Your task to perform on an android device: Open Maps and search for coffee Image 0: 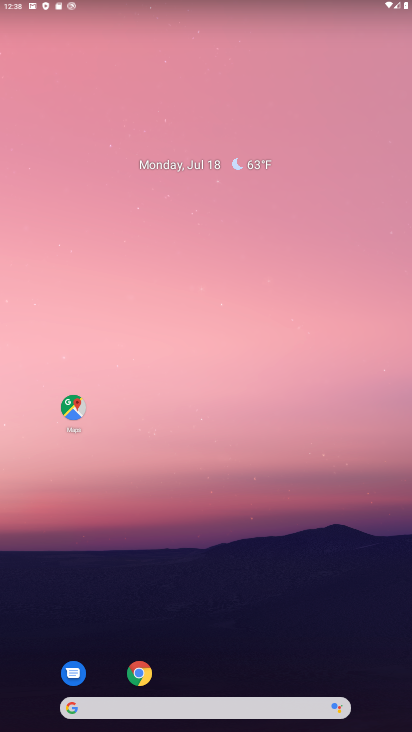
Step 0: drag from (215, 640) to (180, 165)
Your task to perform on an android device: Open Maps and search for coffee Image 1: 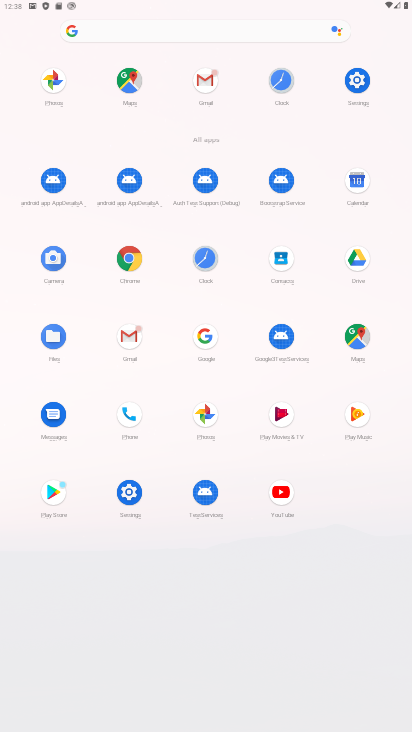
Step 1: click (129, 82)
Your task to perform on an android device: Open Maps and search for coffee Image 2: 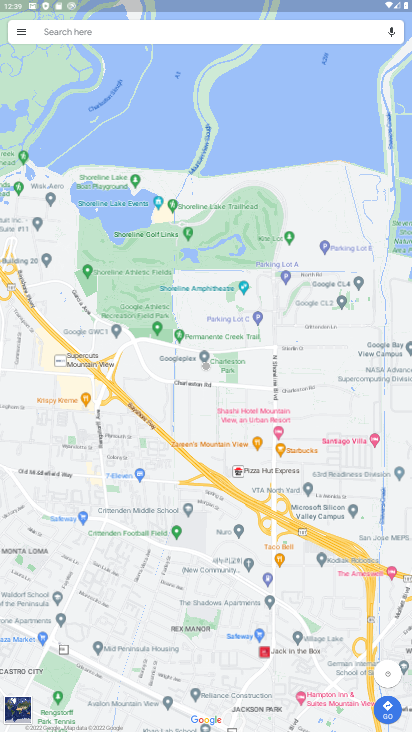
Step 2: click (140, 20)
Your task to perform on an android device: Open Maps and search for coffee Image 3: 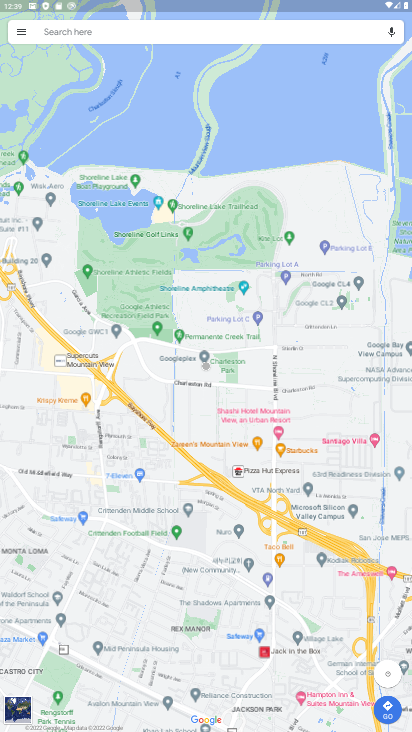
Step 3: click (124, 28)
Your task to perform on an android device: Open Maps and search for coffee Image 4: 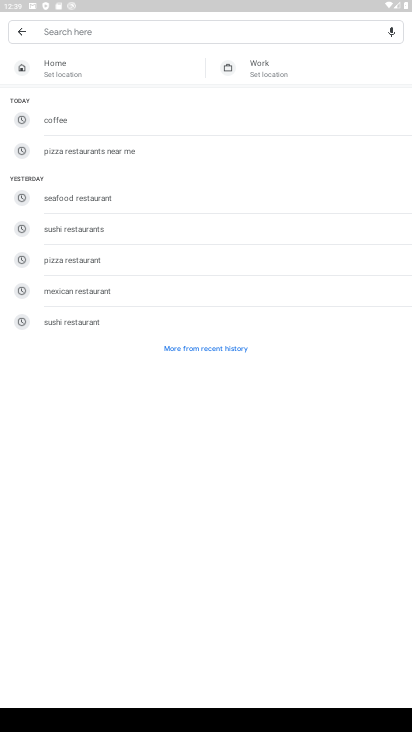
Step 4: click (68, 111)
Your task to perform on an android device: Open Maps and search for coffee Image 5: 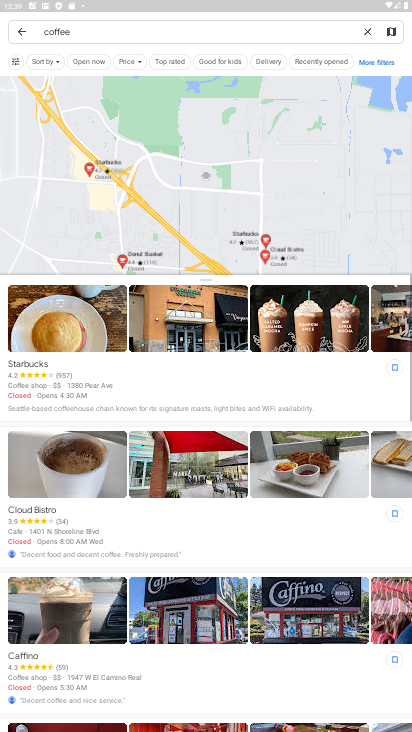
Step 5: task complete